Your task to perform on an android device: Add "asus zenbook" to the cart on costco, then select checkout. Image 0: 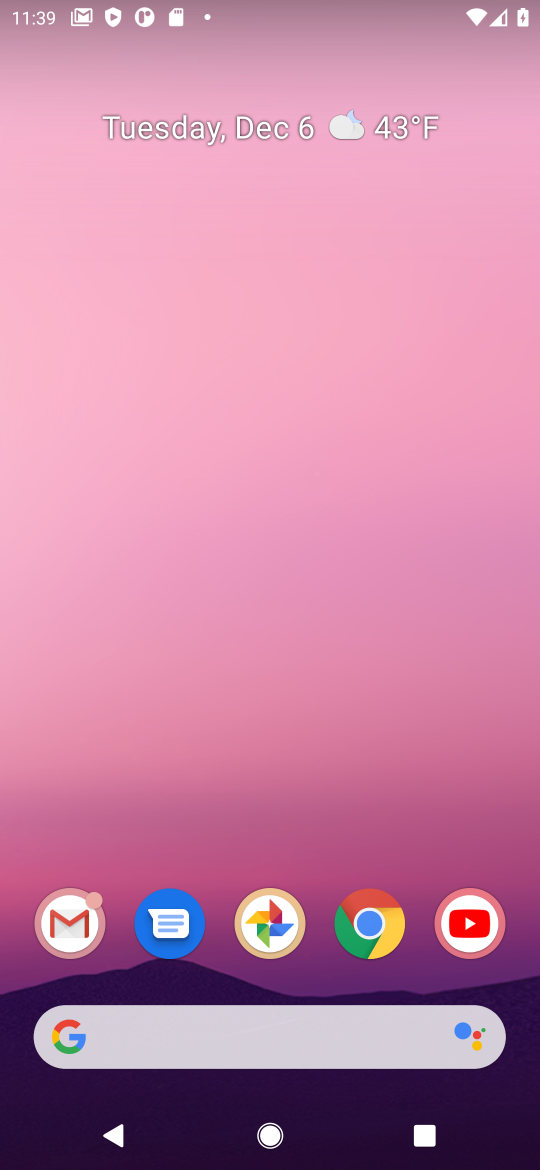
Step 0: task complete